Your task to perform on an android device: find which apps use the phone's location Image 0: 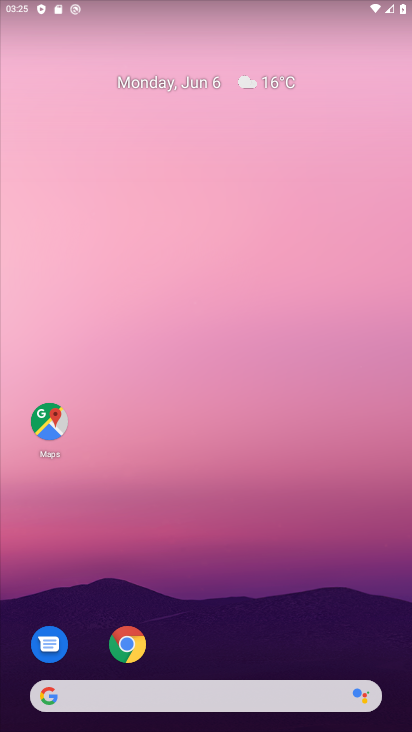
Step 0: drag from (389, 662) to (350, 52)
Your task to perform on an android device: find which apps use the phone's location Image 1: 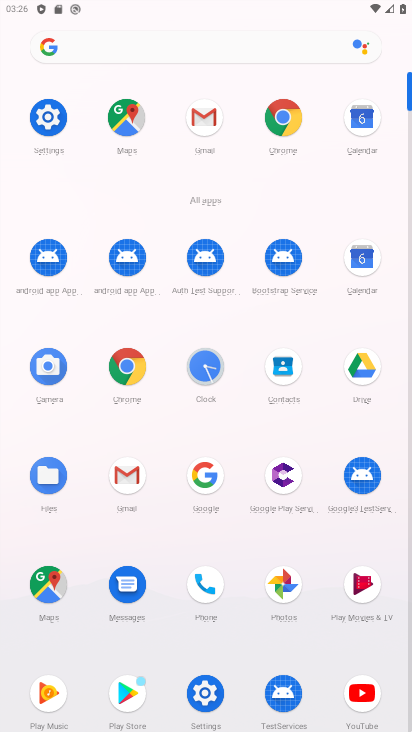
Step 1: click (198, 699)
Your task to perform on an android device: find which apps use the phone's location Image 2: 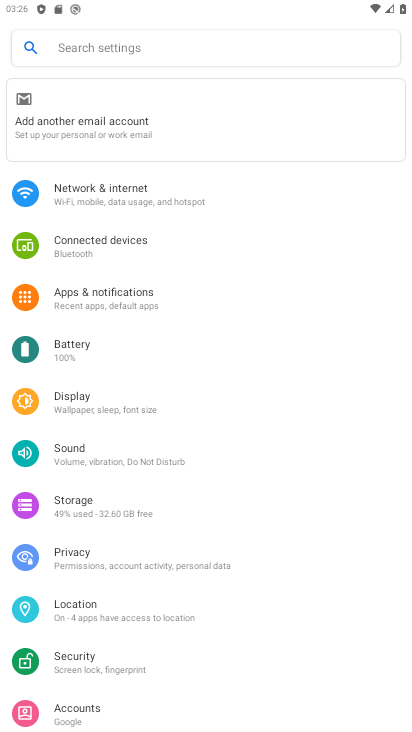
Step 2: click (71, 602)
Your task to perform on an android device: find which apps use the phone's location Image 3: 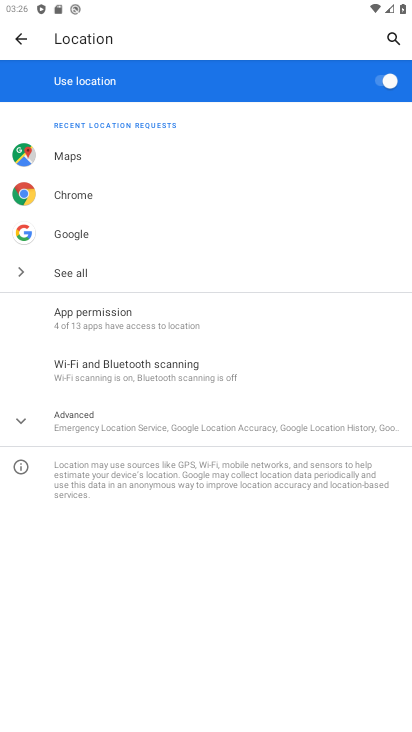
Step 3: click (105, 310)
Your task to perform on an android device: find which apps use the phone's location Image 4: 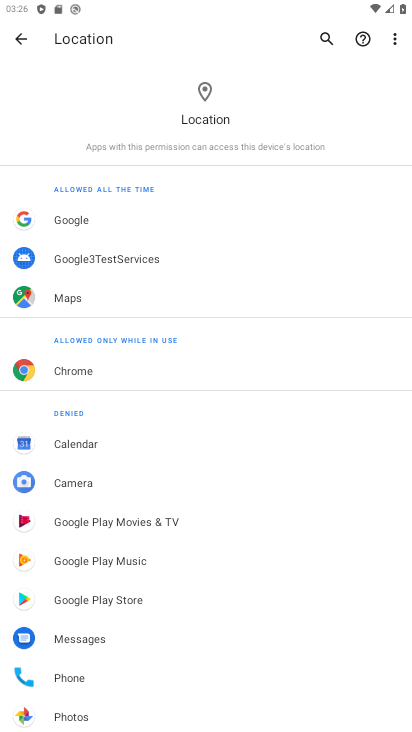
Step 4: task complete